Your task to perform on an android device: clear history in the chrome app Image 0: 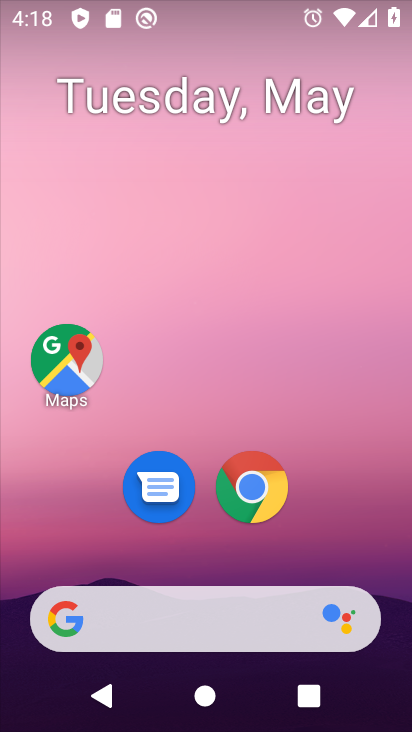
Step 0: click (251, 486)
Your task to perform on an android device: clear history in the chrome app Image 1: 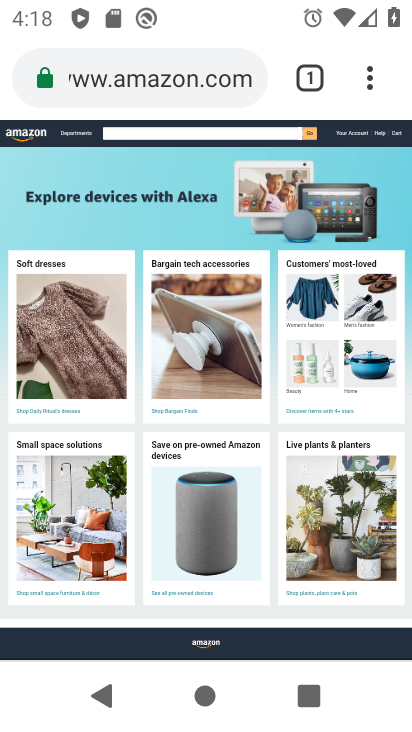
Step 1: drag from (373, 75) to (112, 431)
Your task to perform on an android device: clear history in the chrome app Image 2: 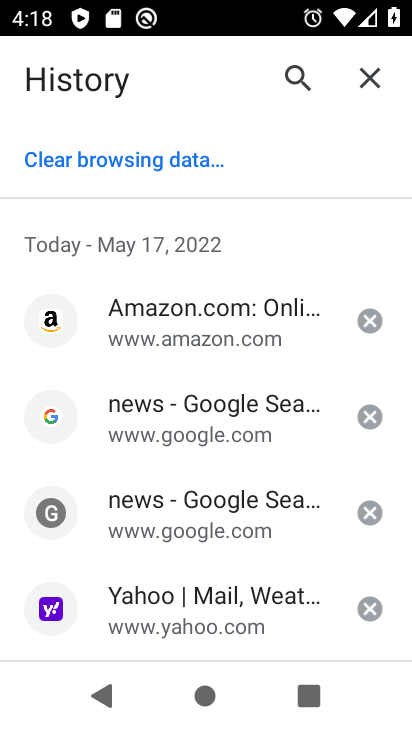
Step 2: click (124, 158)
Your task to perform on an android device: clear history in the chrome app Image 3: 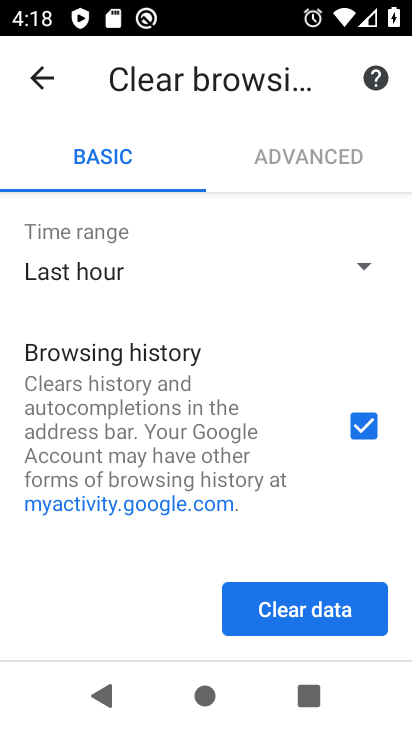
Step 3: click (322, 598)
Your task to perform on an android device: clear history in the chrome app Image 4: 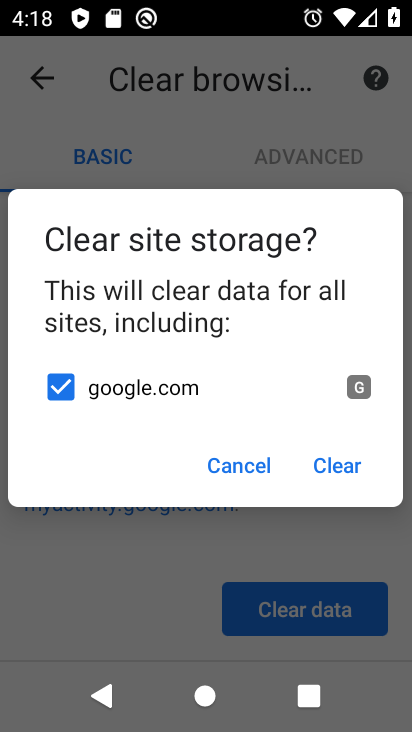
Step 4: click (327, 473)
Your task to perform on an android device: clear history in the chrome app Image 5: 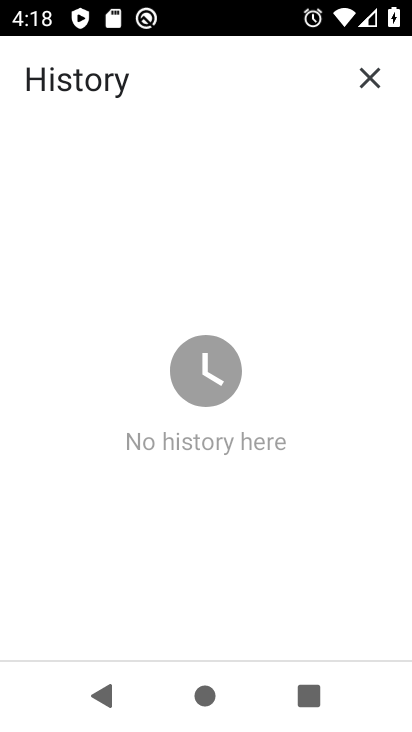
Step 5: task complete